Your task to perform on an android device: install app "Google Home" Image 0: 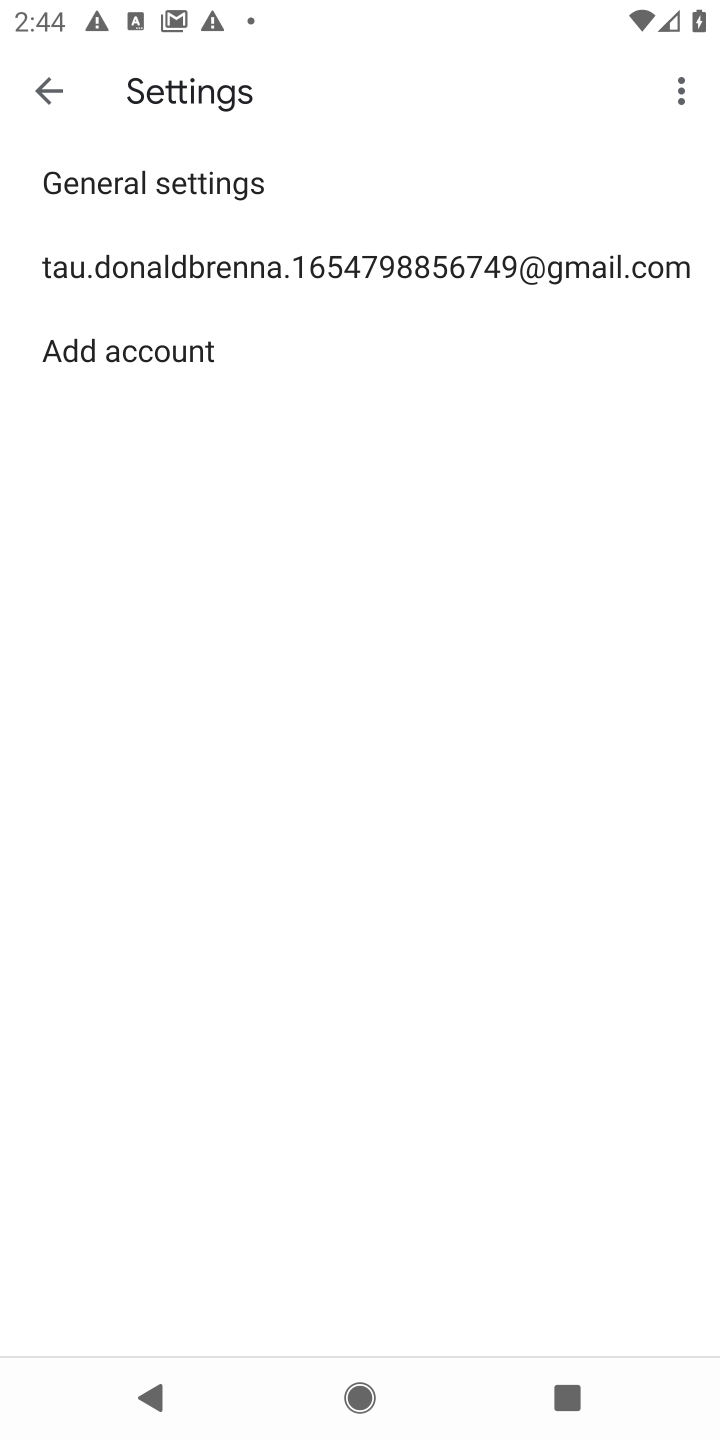
Step 0: press home button
Your task to perform on an android device: install app "Google Home" Image 1: 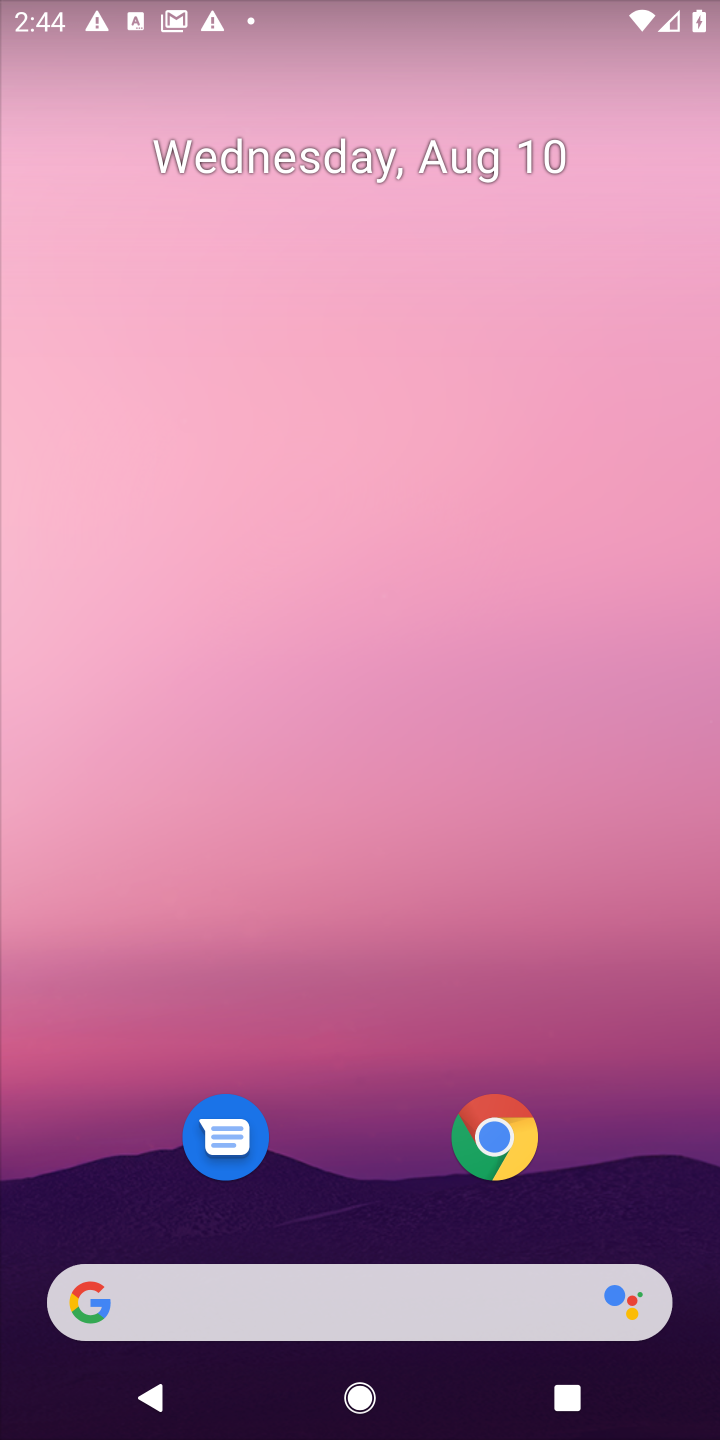
Step 1: drag from (341, 963) to (422, 35)
Your task to perform on an android device: install app "Google Home" Image 2: 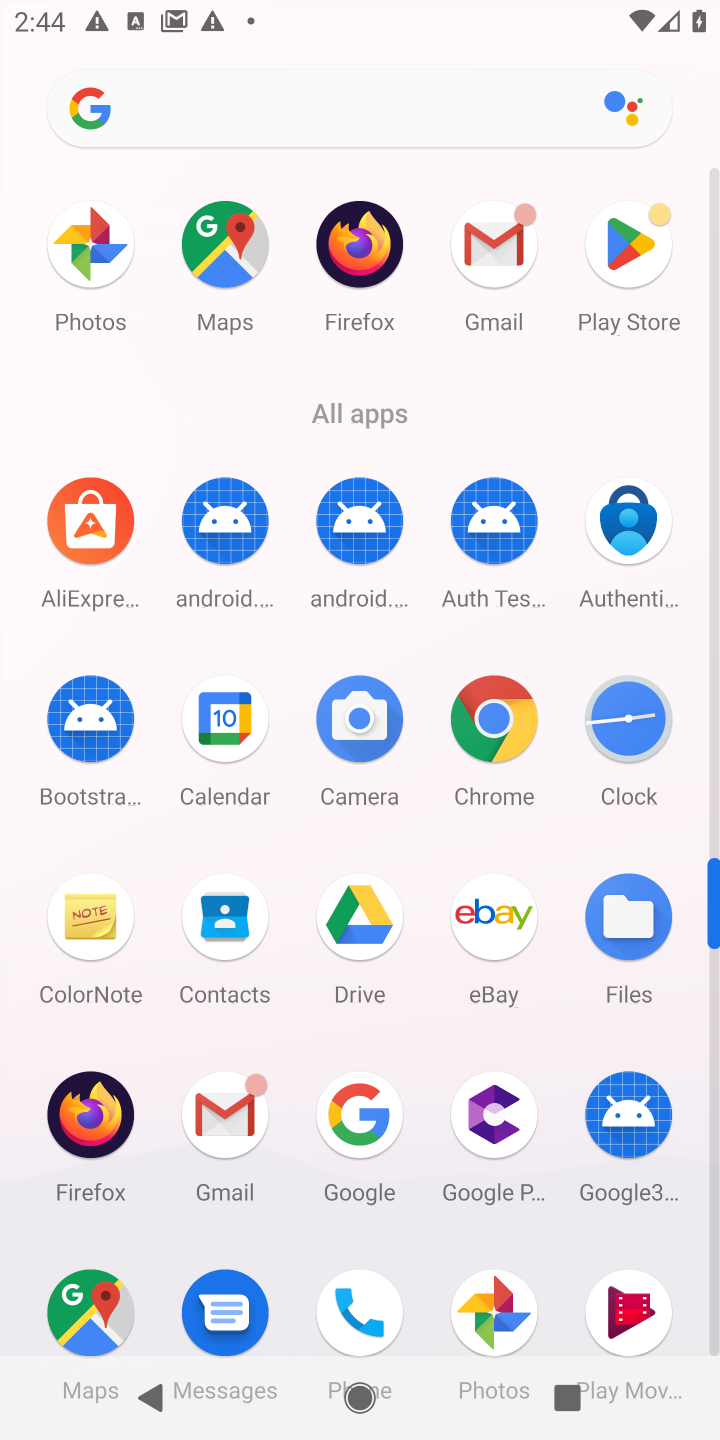
Step 2: click (644, 262)
Your task to perform on an android device: install app "Google Home" Image 3: 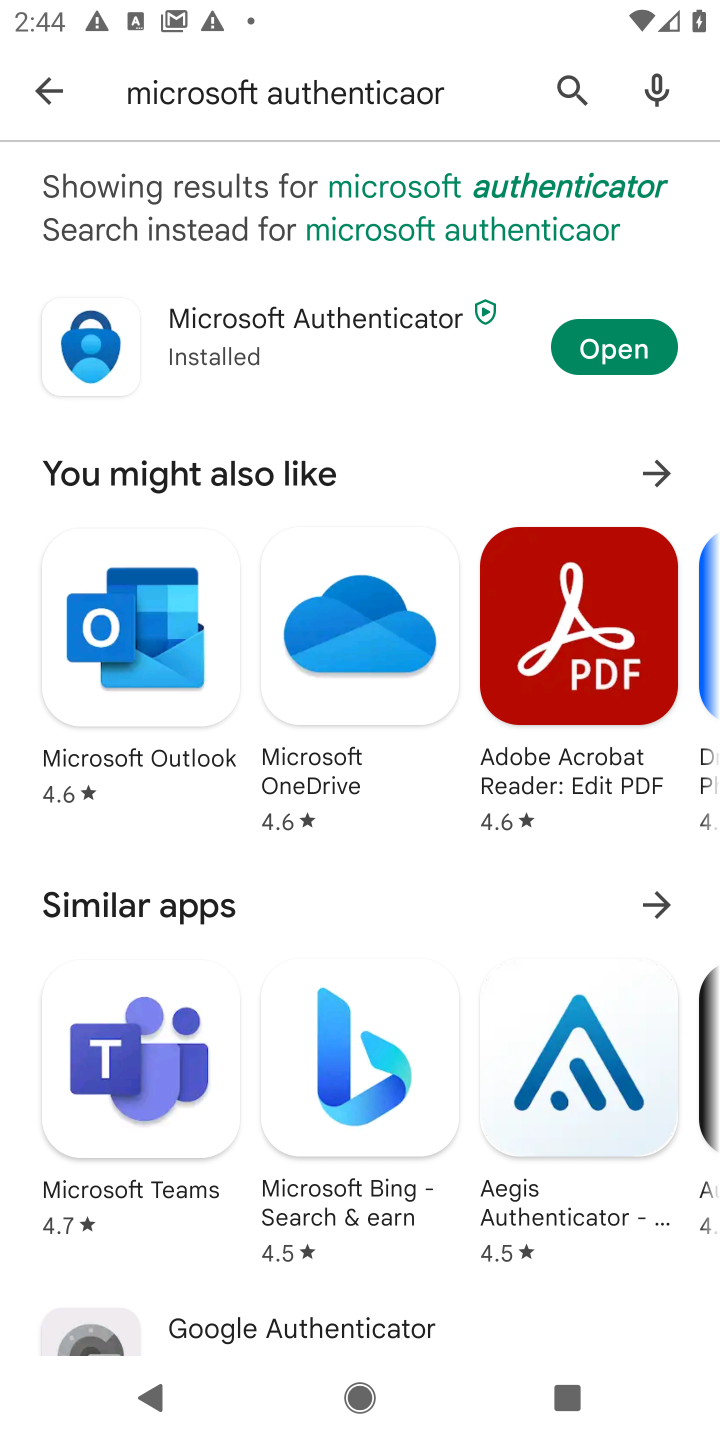
Step 3: click (332, 76)
Your task to perform on an android device: install app "Google Home" Image 4: 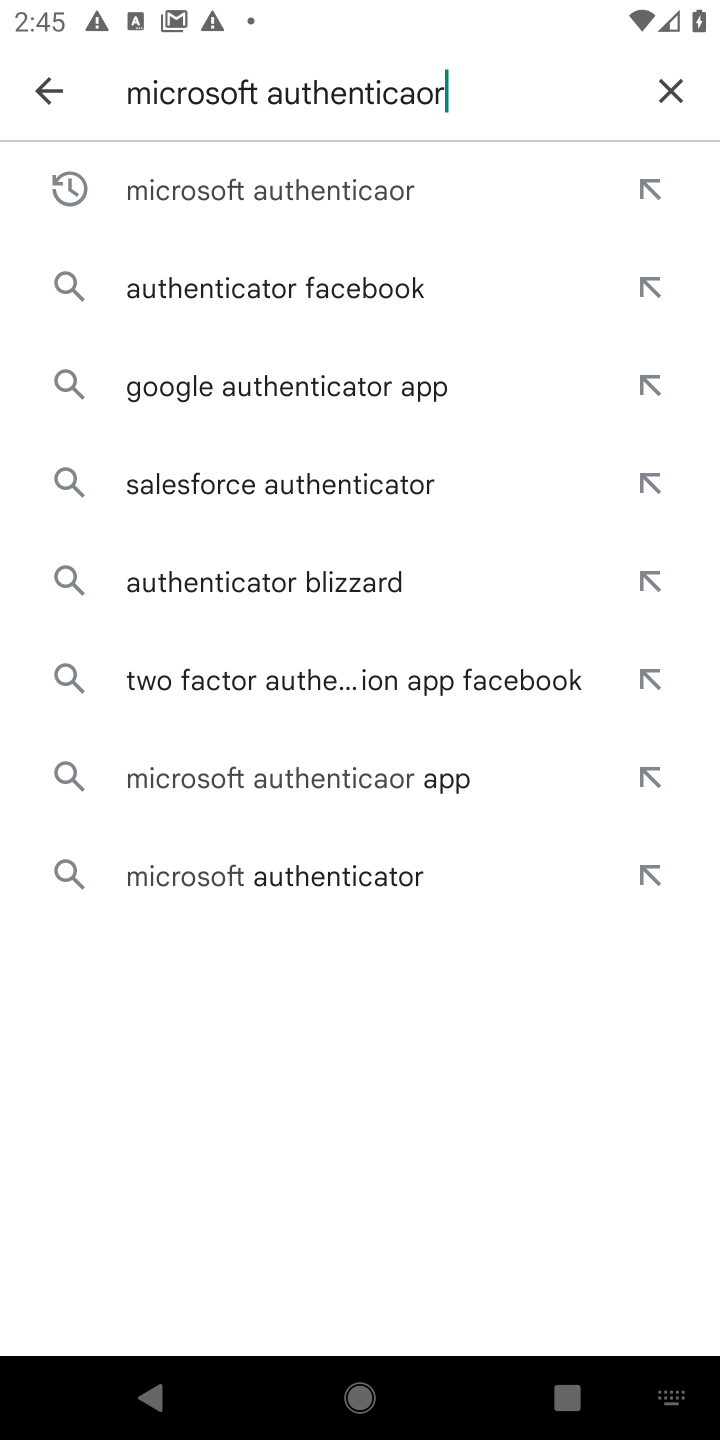
Step 4: click (679, 80)
Your task to perform on an android device: install app "Google Home" Image 5: 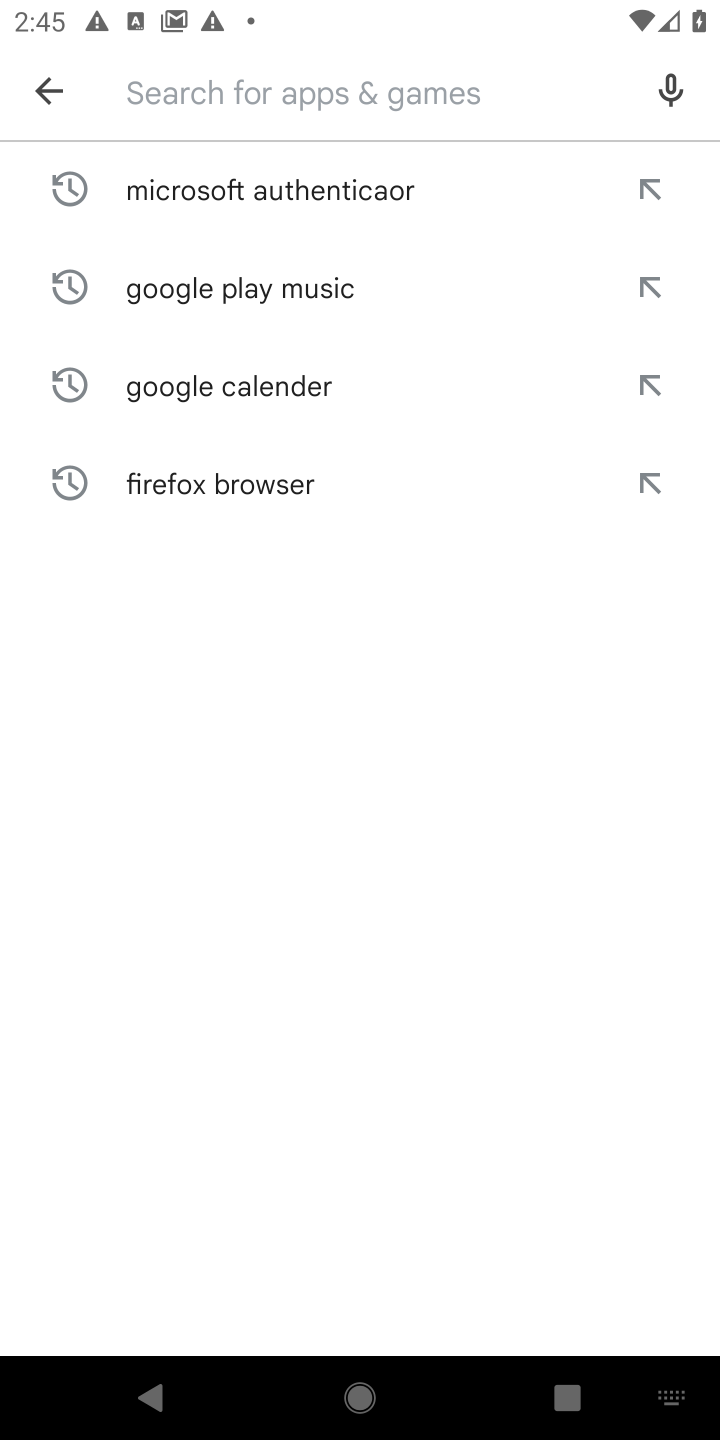
Step 5: type "google home"
Your task to perform on an android device: install app "Google Home" Image 6: 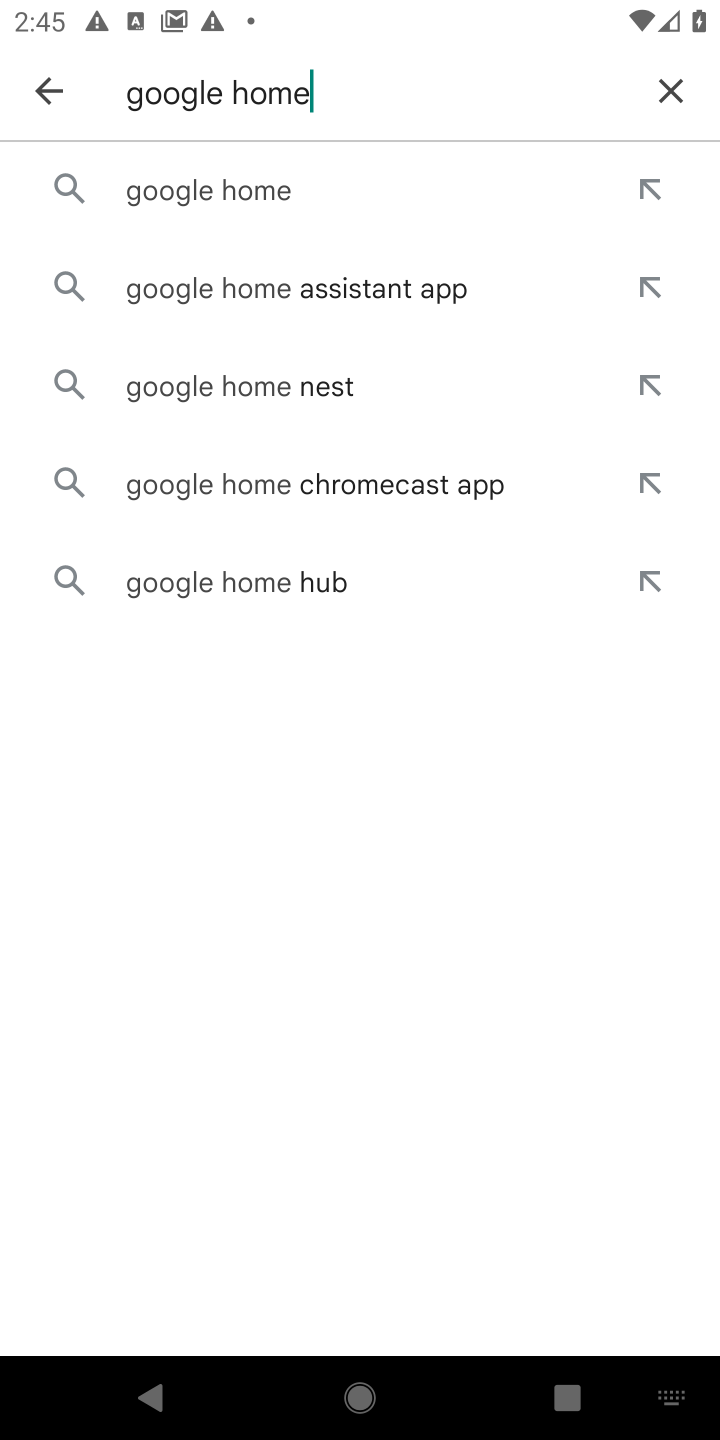
Step 6: click (181, 204)
Your task to perform on an android device: install app "Google Home" Image 7: 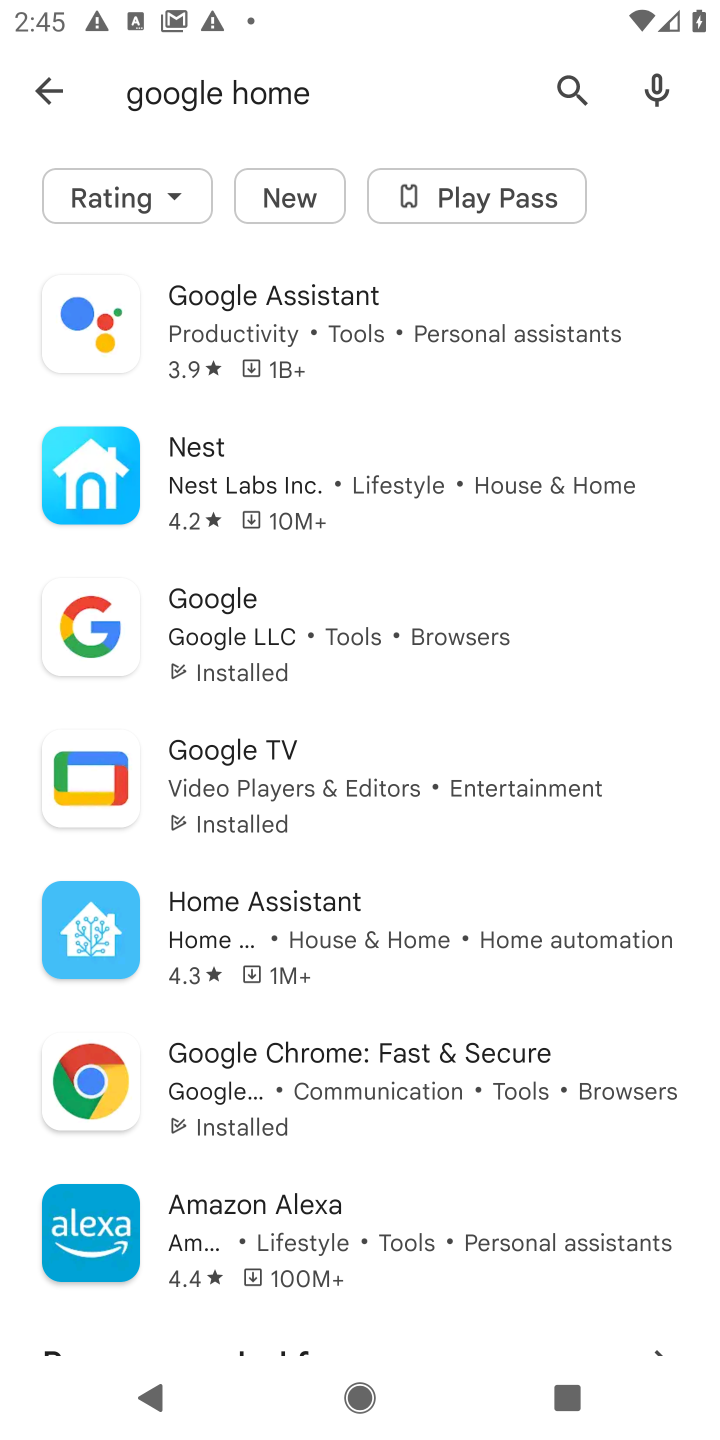
Step 7: task complete